Your task to perform on an android device: Open Wikipedia Image 0: 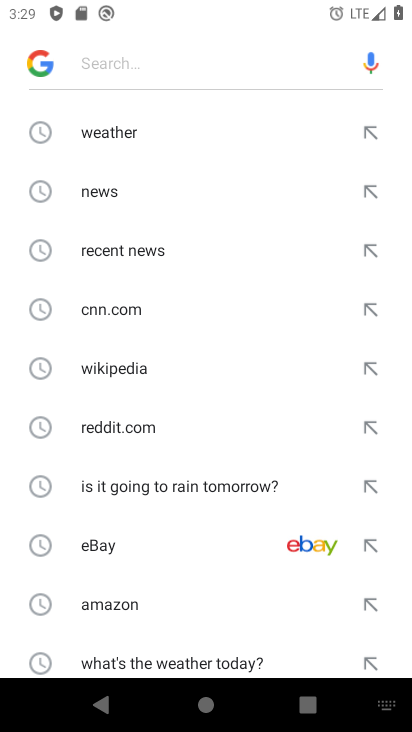
Step 0: press home button
Your task to perform on an android device: Open Wikipedia Image 1: 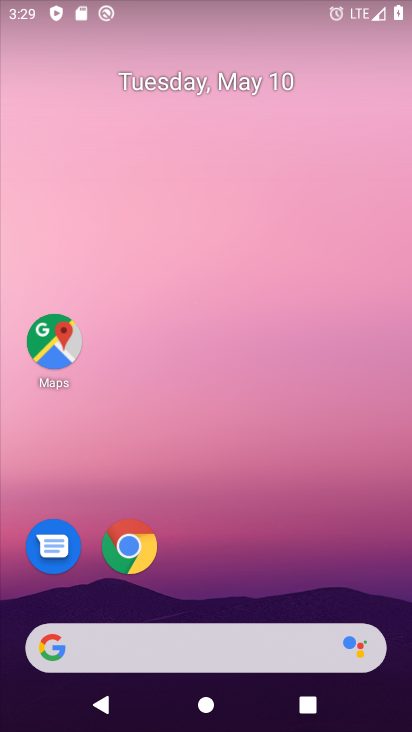
Step 1: click (232, 544)
Your task to perform on an android device: Open Wikipedia Image 2: 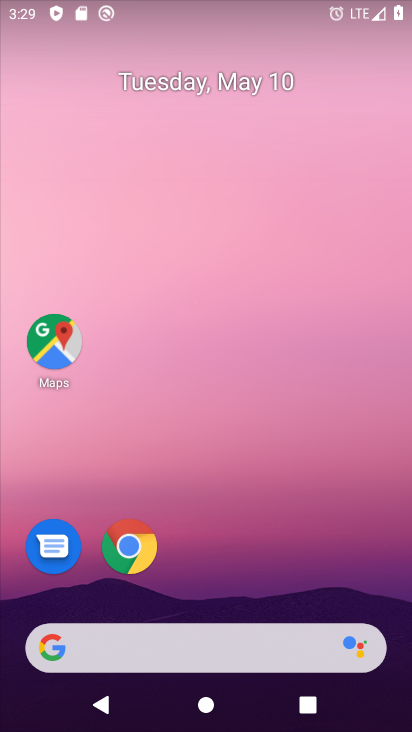
Step 2: click (135, 540)
Your task to perform on an android device: Open Wikipedia Image 3: 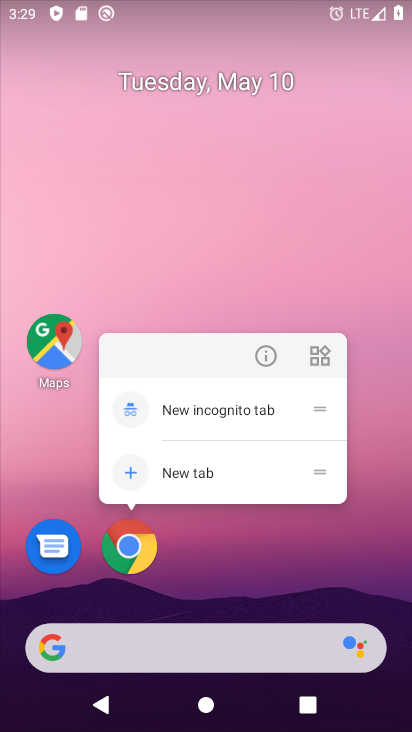
Step 3: click (135, 540)
Your task to perform on an android device: Open Wikipedia Image 4: 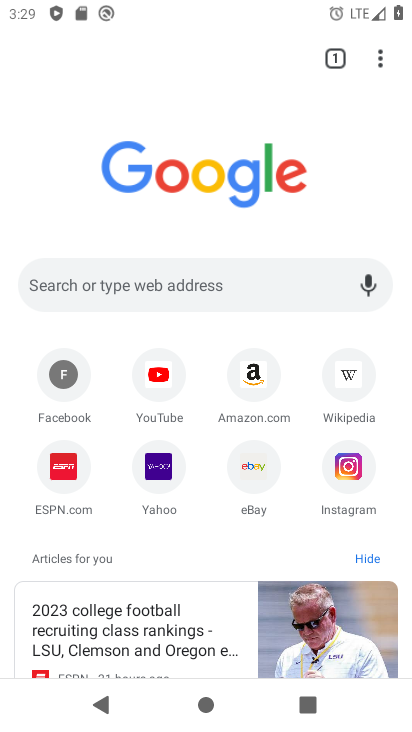
Step 4: click (353, 390)
Your task to perform on an android device: Open Wikipedia Image 5: 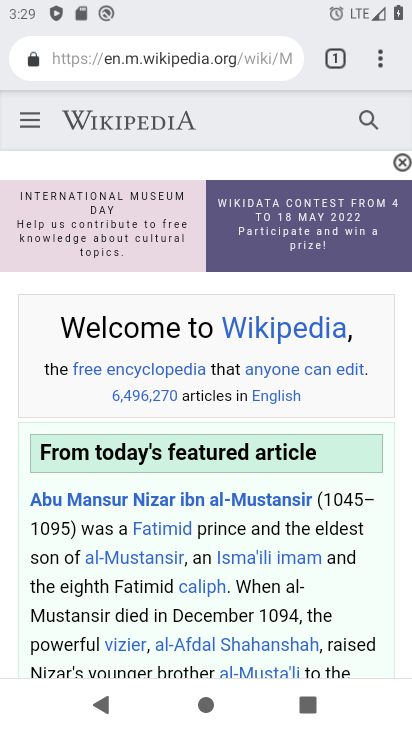
Step 5: task complete